Your task to perform on an android device: Open eBay Image 0: 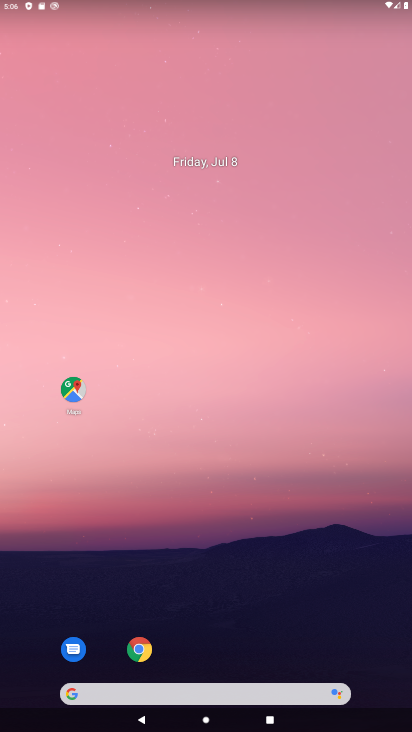
Step 0: drag from (299, 593) to (270, 145)
Your task to perform on an android device: Open eBay Image 1: 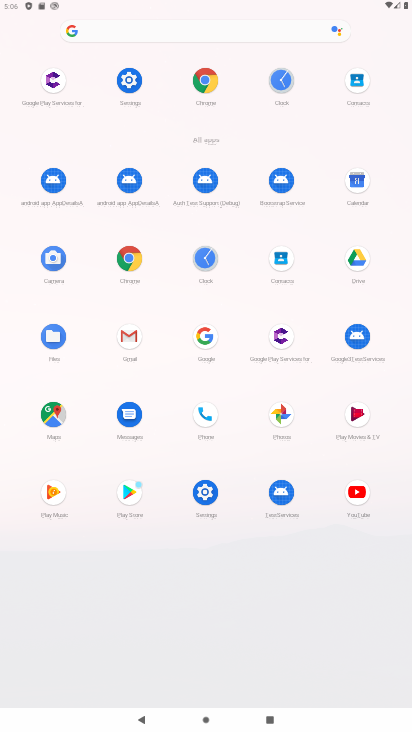
Step 1: click (204, 80)
Your task to perform on an android device: Open eBay Image 2: 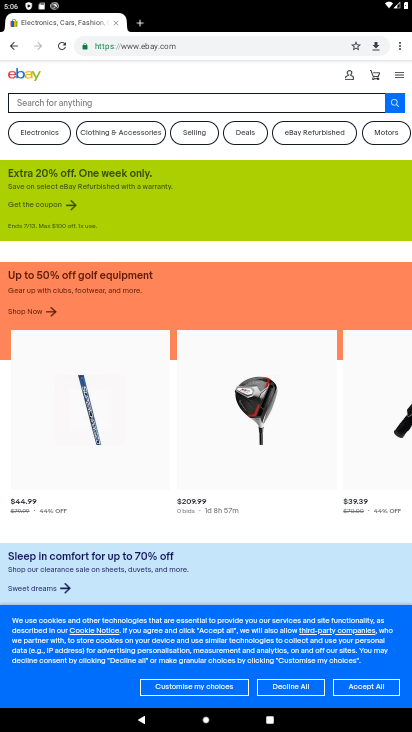
Step 2: click (228, 47)
Your task to perform on an android device: Open eBay Image 3: 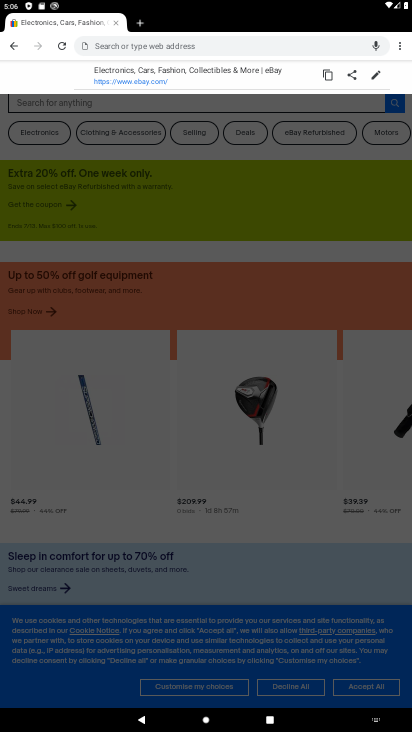
Step 3: task complete